Your task to perform on an android device: turn off airplane mode Image 0: 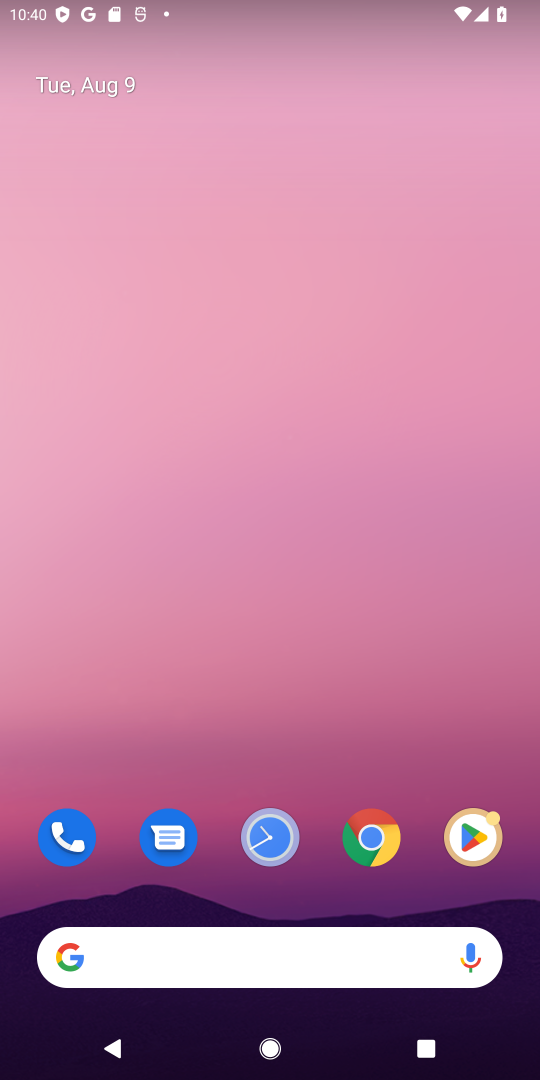
Step 0: drag from (331, 903) to (321, 175)
Your task to perform on an android device: turn off airplane mode Image 1: 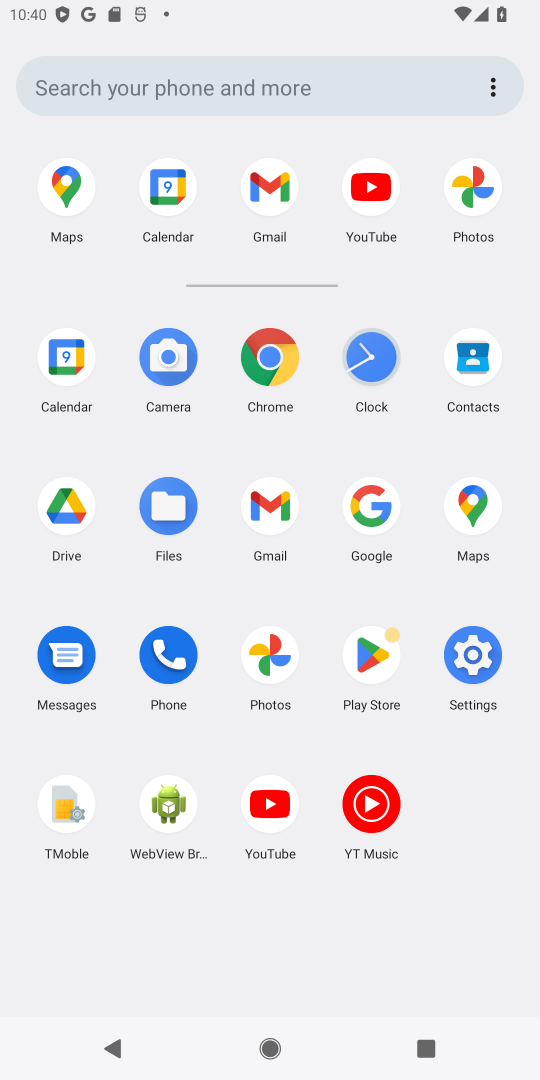
Step 1: click (473, 662)
Your task to perform on an android device: turn off airplane mode Image 2: 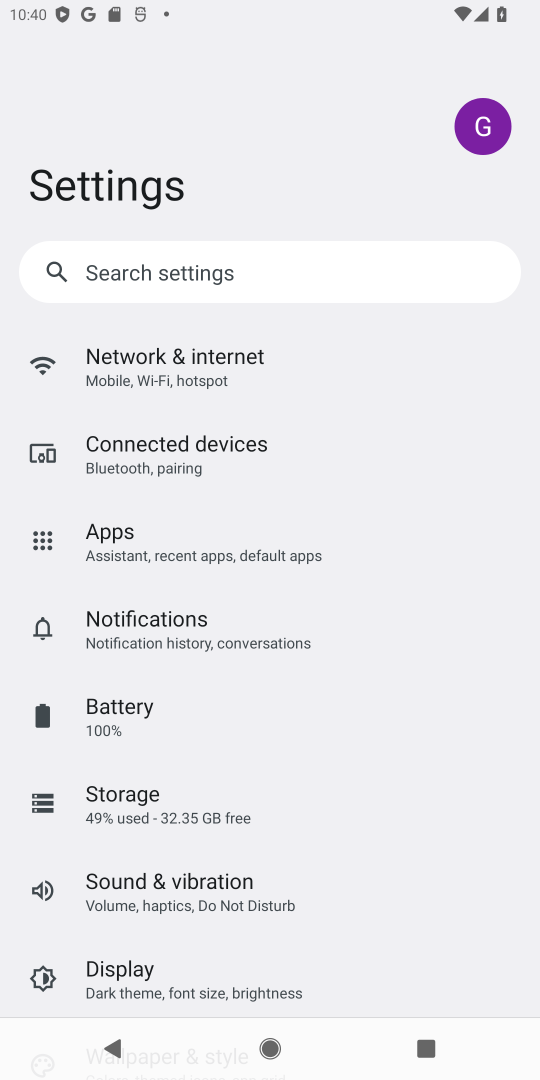
Step 2: click (197, 373)
Your task to perform on an android device: turn off airplane mode Image 3: 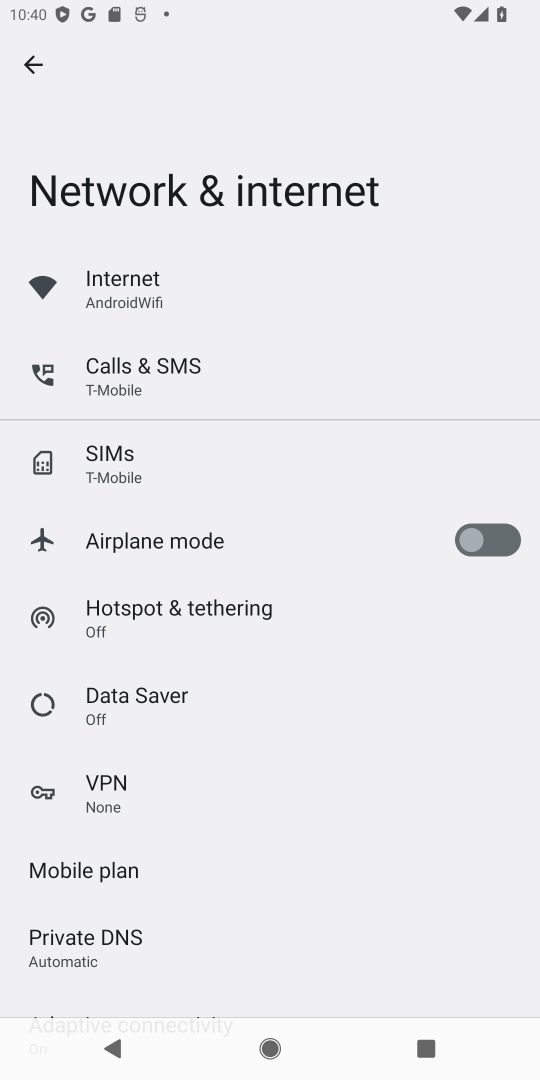
Step 3: task complete